Your task to perform on an android device: check the backup settings in the google photos Image 0: 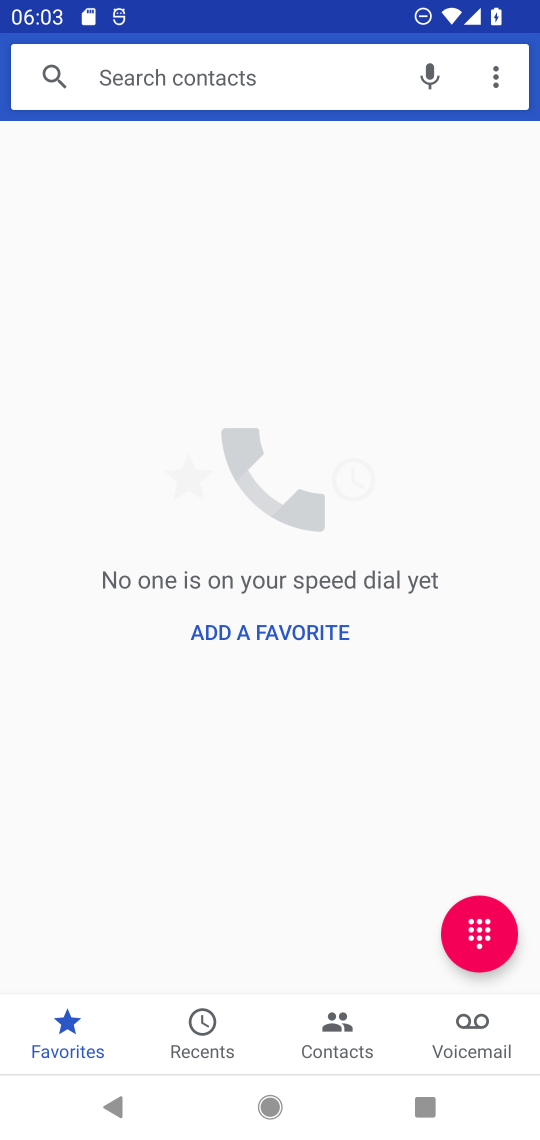
Step 0: press home button
Your task to perform on an android device: check the backup settings in the google photos Image 1: 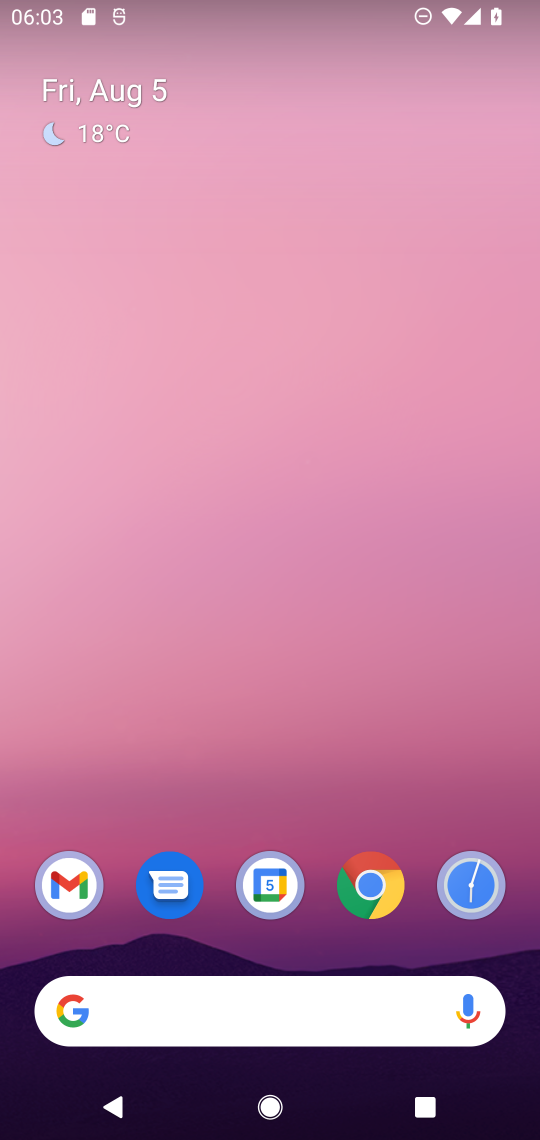
Step 1: drag from (336, 961) to (315, 155)
Your task to perform on an android device: check the backup settings in the google photos Image 2: 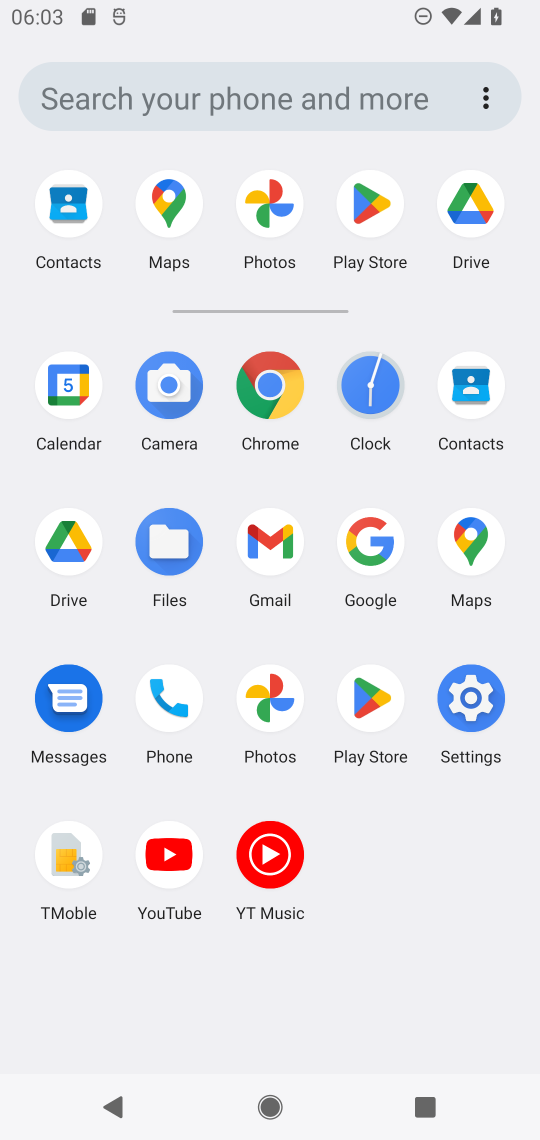
Step 2: click (273, 694)
Your task to perform on an android device: check the backup settings in the google photos Image 3: 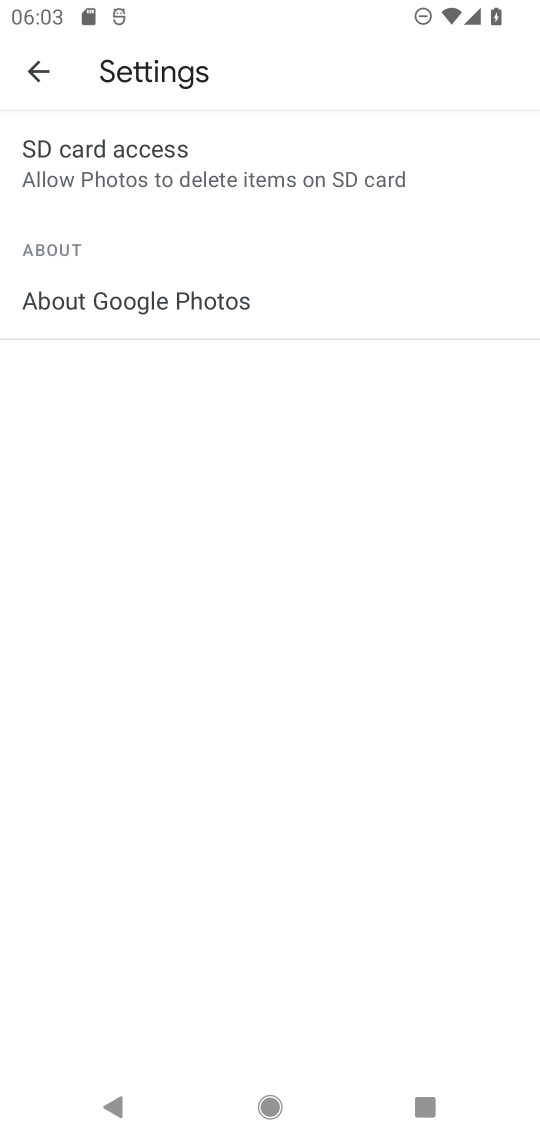
Step 3: click (37, 68)
Your task to perform on an android device: check the backup settings in the google photos Image 4: 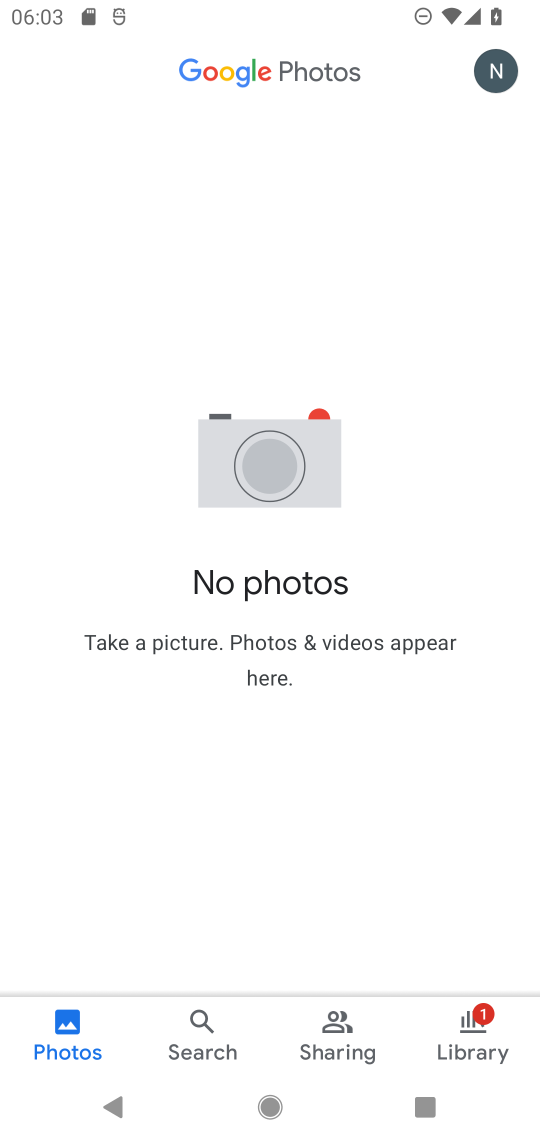
Step 4: click (490, 72)
Your task to perform on an android device: check the backup settings in the google photos Image 5: 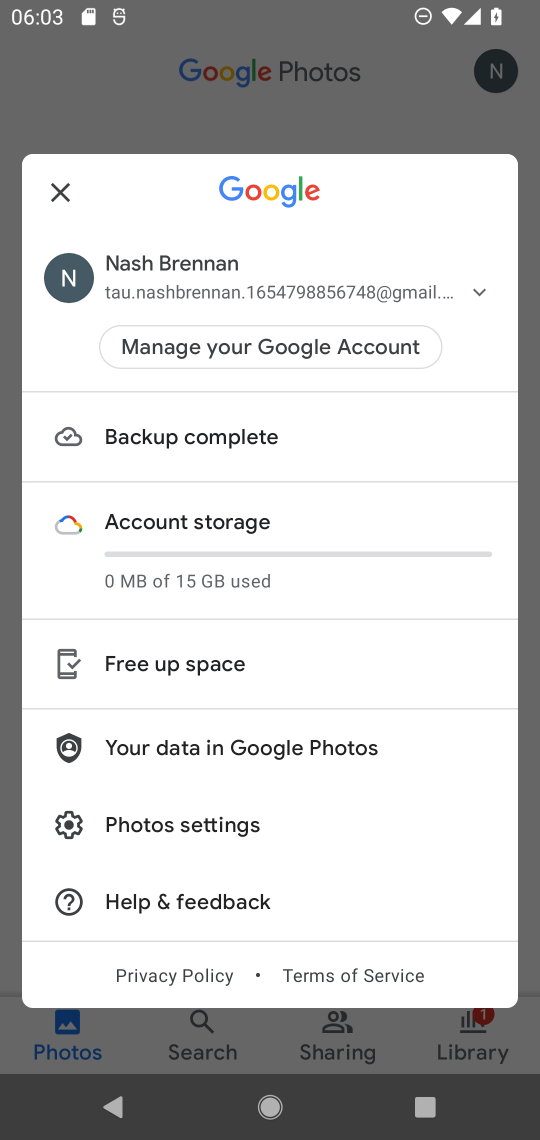
Step 5: click (168, 828)
Your task to perform on an android device: check the backup settings in the google photos Image 6: 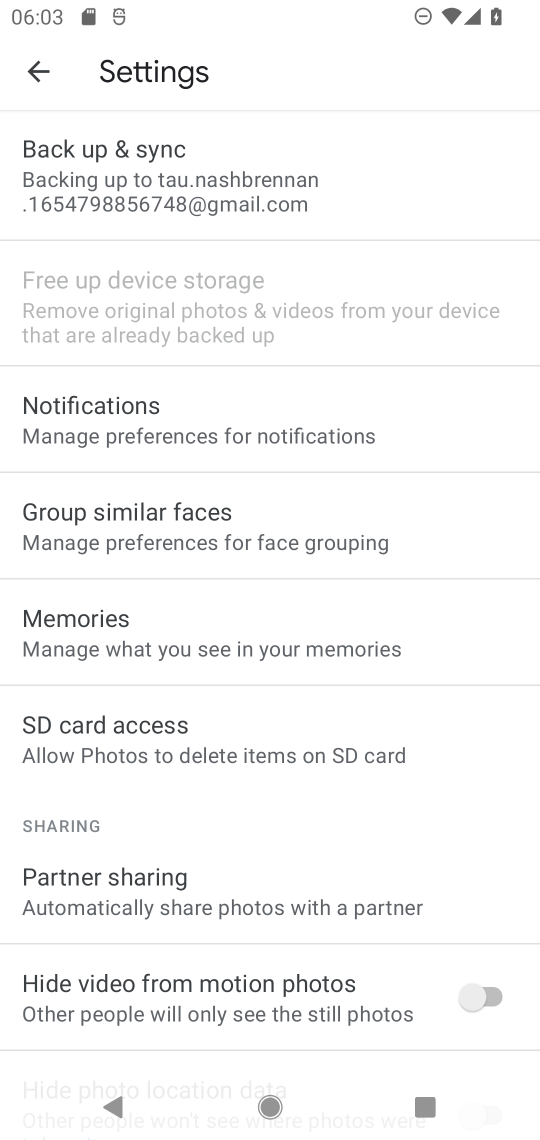
Step 6: click (107, 168)
Your task to perform on an android device: check the backup settings in the google photos Image 7: 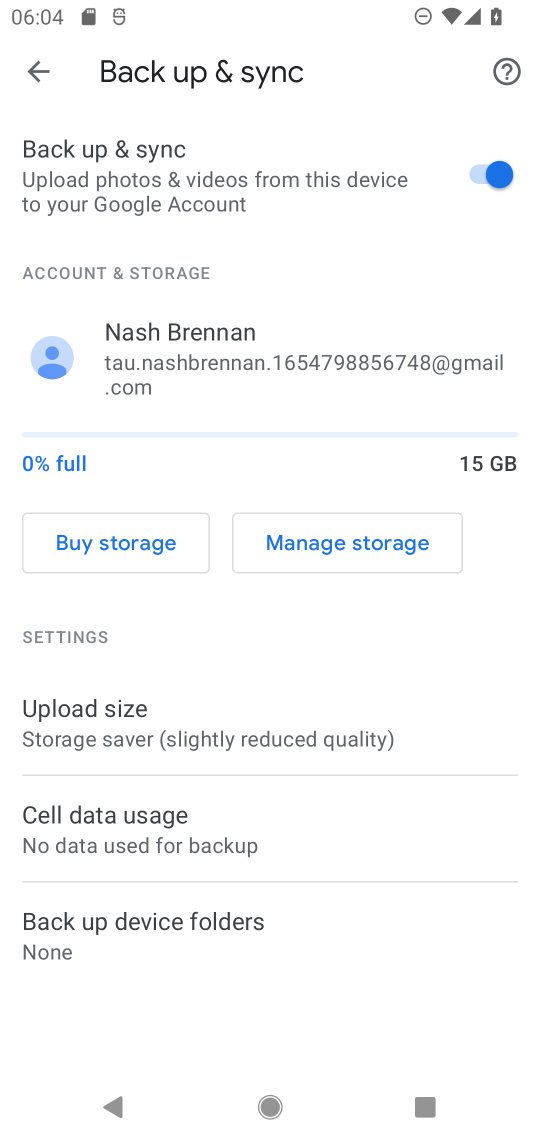
Step 7: task complete